Your task to perform on an android device: Open the phone app and click the voicemail tab. Image 0: 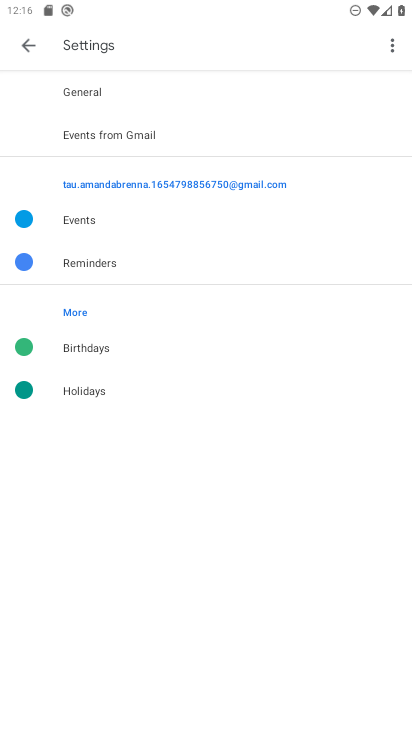
Step 0: press home button
Your task to perform on an android device: Open the phone app and click the voicemail tab. Image 1: 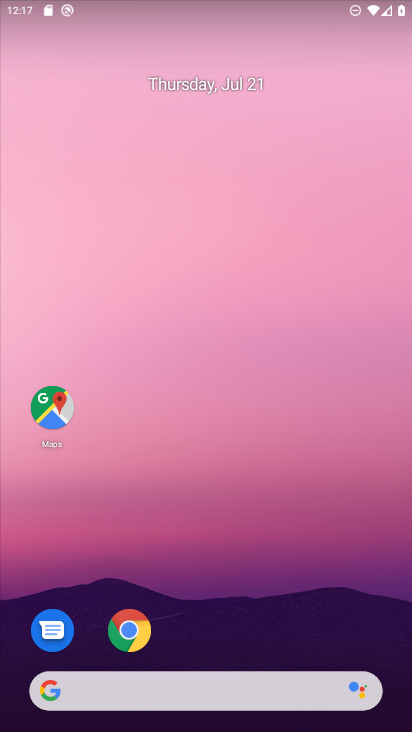
Step 1: drag from (403, 697) to (373, 184)
Your task to perform on an android device: Open the phone app and click the voicemail tab. Image 2: 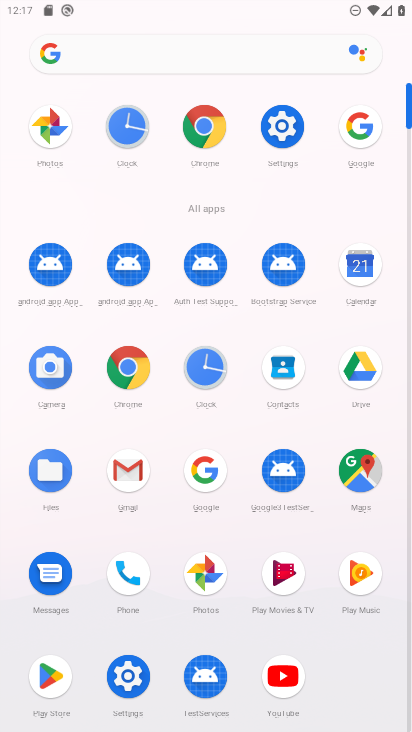
Step 2: click (124, 572)
Your task to perform on an android device: Open the phone app and click the voicemail tab. Image 3: 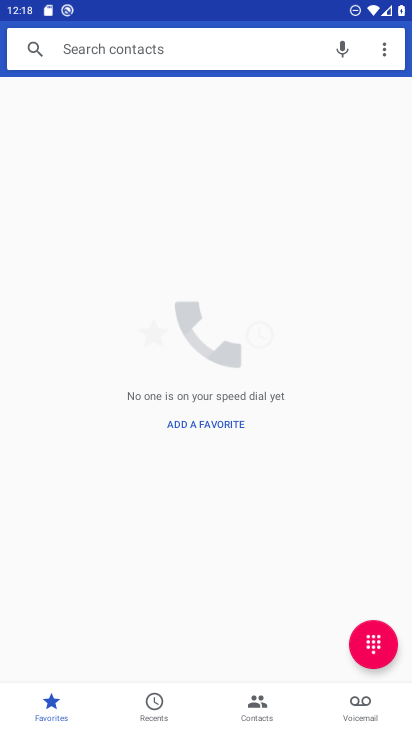
Step 3: click (358, 715)
Your task to perform on an android device: Open the phone app and click the voicemail tab. Image 4: 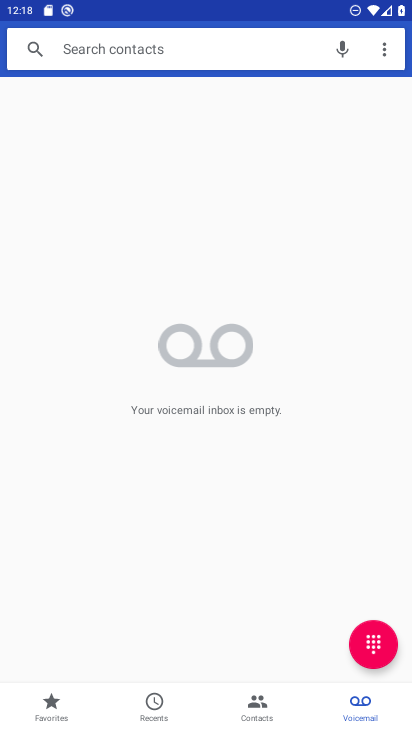
Step 4: task complete